Your task to perform on an android device: toggle data saver in the chrome app Image 0: 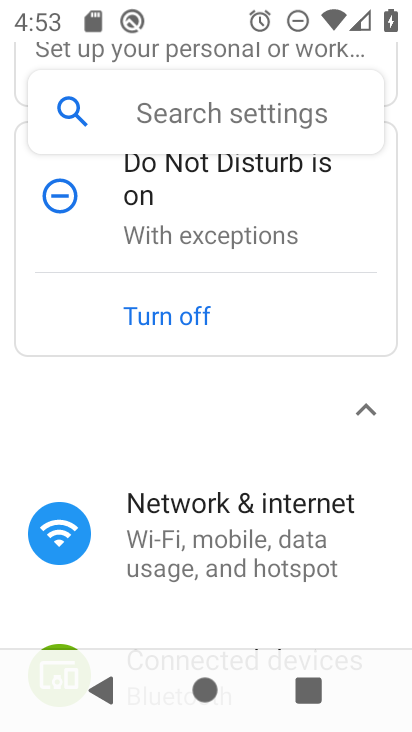
Step 0: press home button
Your task to perform on an android device: toggle data saver in the chrome app Image 1: 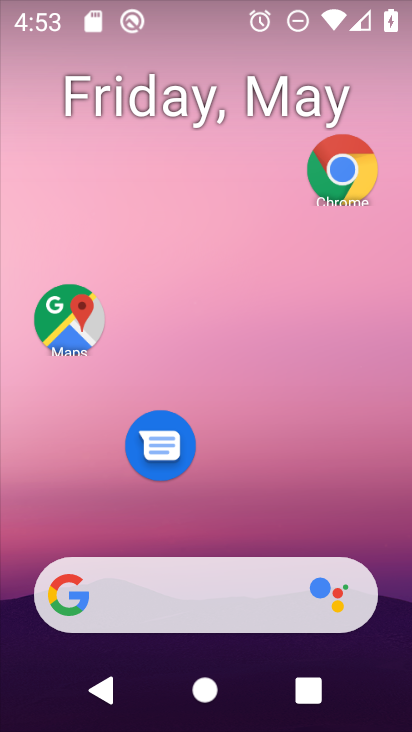
Step 1: click (341, 176)
Your task to perform on an android device: toggle data saver in the chrome app Image 2: 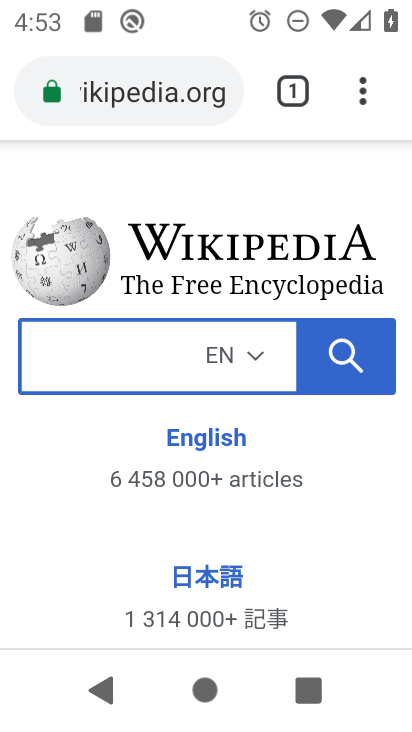
Step 2: click (364, 94)
Your task to perform on an android device: toggle data saver in the chrome app Image 3: 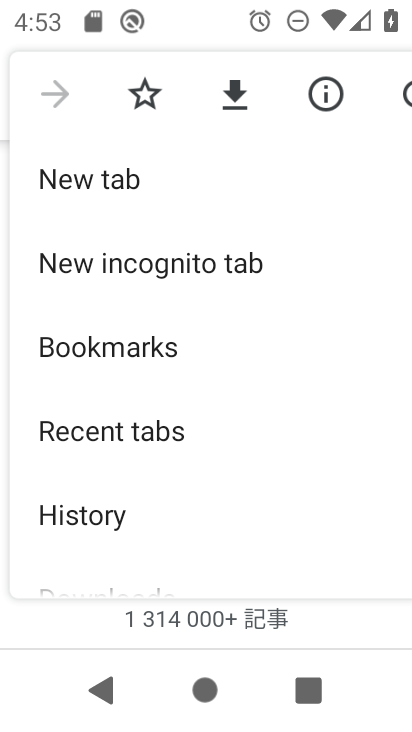
Step 3: drag from (190, 517) to (170, 183)
Your task to perform on an android device: toggle data saver in the chrome app Image 4: 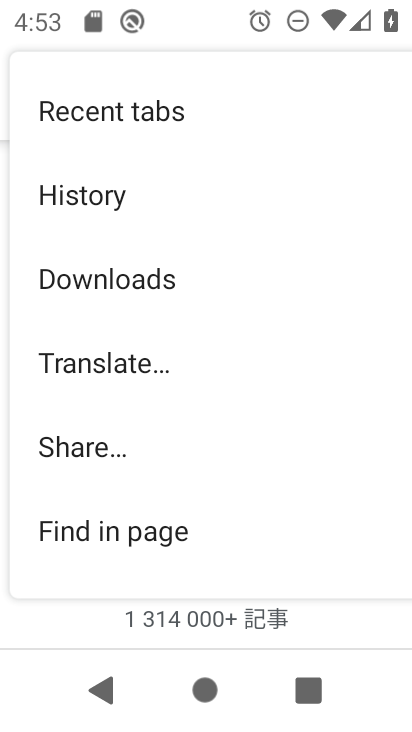
Step 4: drag from (156, 478) to (141, 148)
Your task to perform on an android device: toggle data saver in the chrome app Image 5: 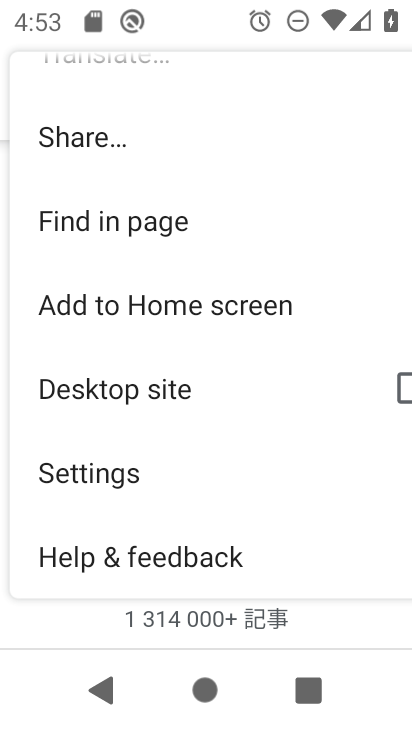
Step 5: click (131, 469)
Your task to perform on an android device: toggle data saver in the chrome app Image 6: 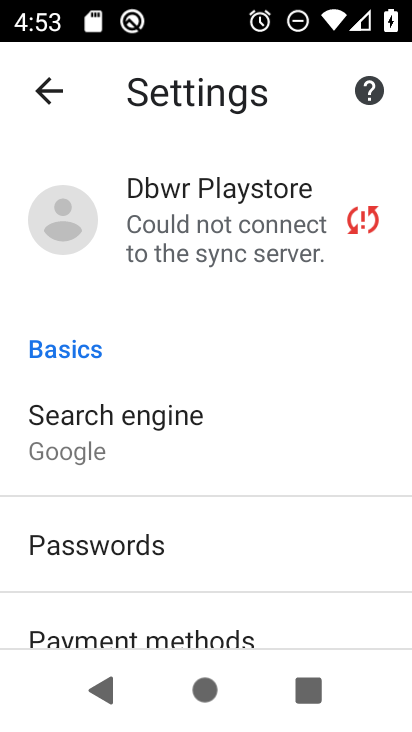
Step 6: drag from (156, 571) to (216, 119)
Your task to perform on an android device: toggle data saver in the chrome app Image 7: 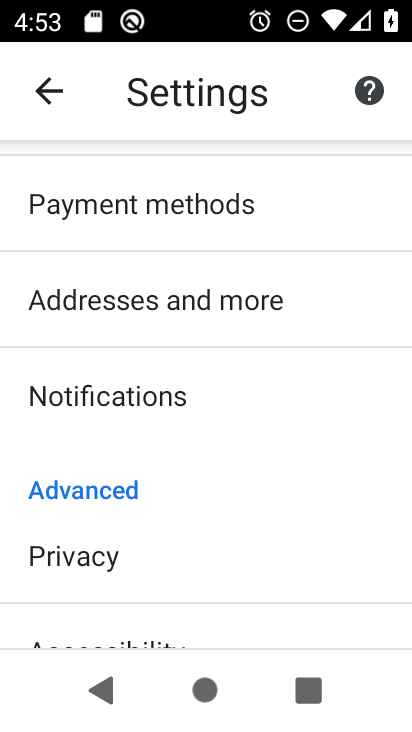
Step 7: drag from (161, 522) to (160, 261)
Your task to perform on an android device: toggle data saver in the chrome app Image 8: 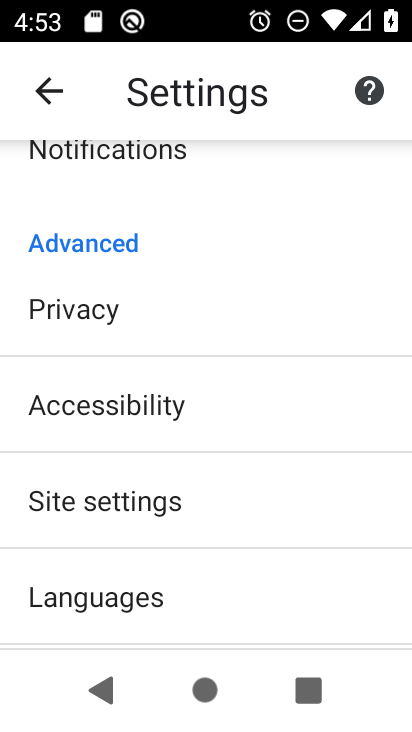
Step 8: click (163, 306)
Your task to perform on an android device: toggle data saver in the chrome app Image 9: 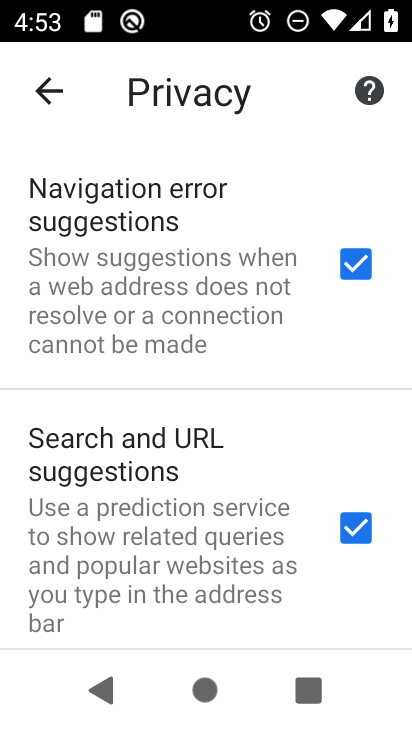
Step 9: click (46, 97)
Your task to perform on an android device: toggle data saver in the chrome app Image 10: 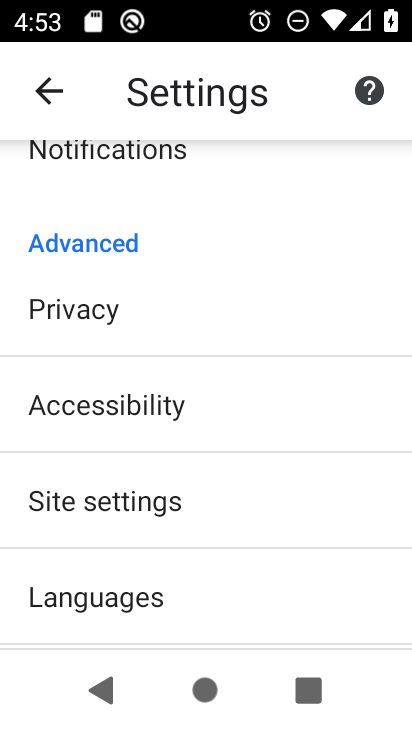
Step 10: drag from (137, 537) to (137, 294)
Your task to perform on an android device: toggle data saver in the chrome app Image 11: 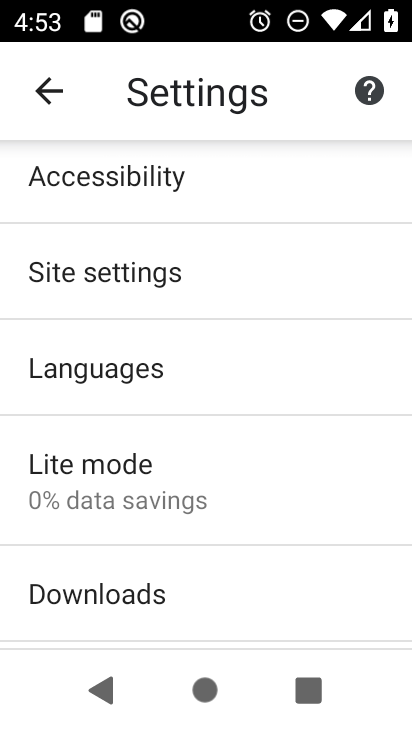
Step 11: click (122, 480)
Your task to perform on an android device: toggle data saver in the chrome app Image 12: 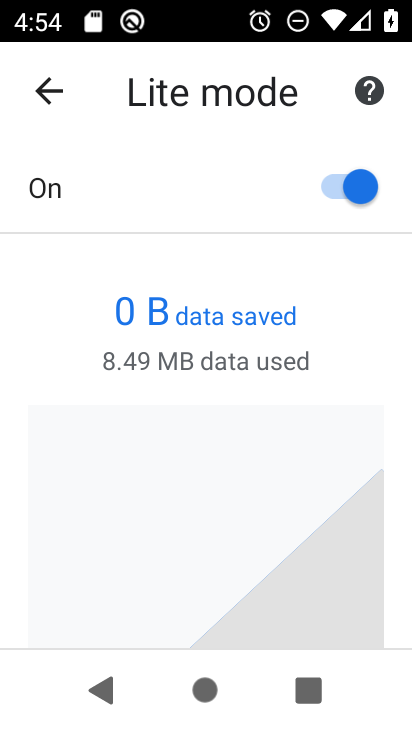
Step 12: click (318, 190)
Your task to perform on an android device: toggle data saver in the chrome app Image 13: 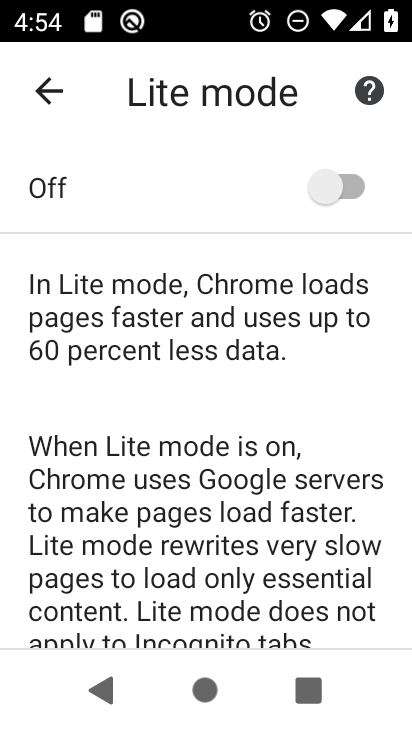
Step 13: task complete